Your task to perform on an android device: toggle show notifications on the lock screen Image 0: 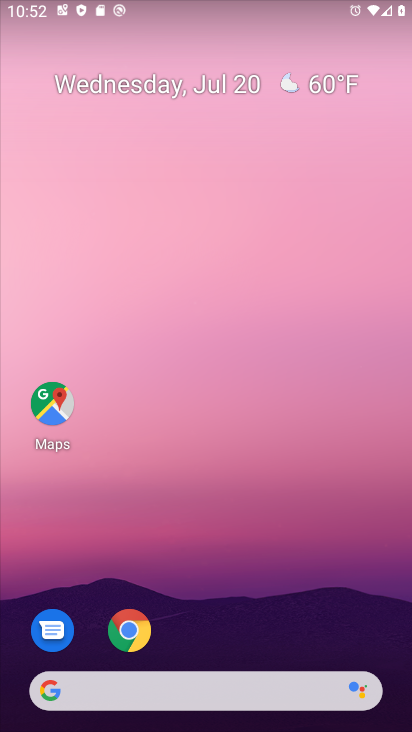
Step 0: drag from (192, 727) to (186, 275)
Your task to perform on an android device: toggle show notifications on the lock screen Image 1: 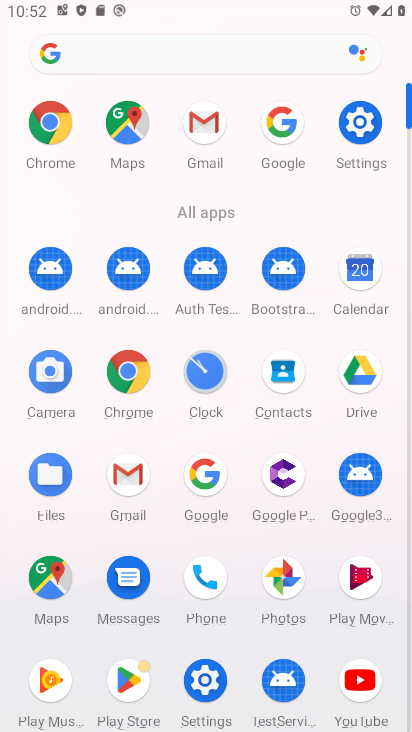
Step 1: click (366, 118)
Your task to perform on an android device: toggle show notifications on the lock screen Image 2: 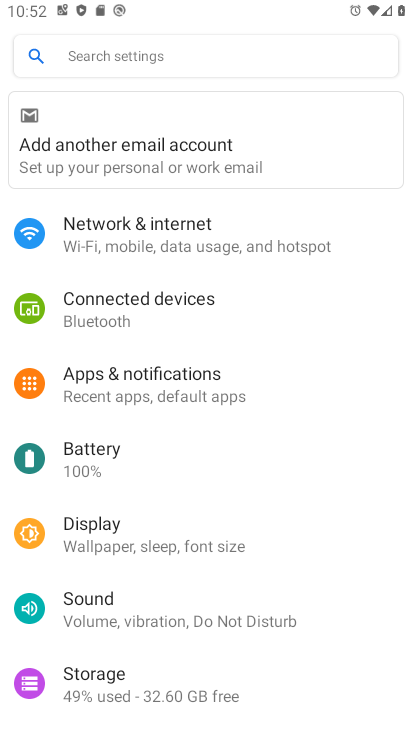
Step 2: click (133, 377)
Your task to perform on an android device: toggle show notifications on the lock screen Image 3: 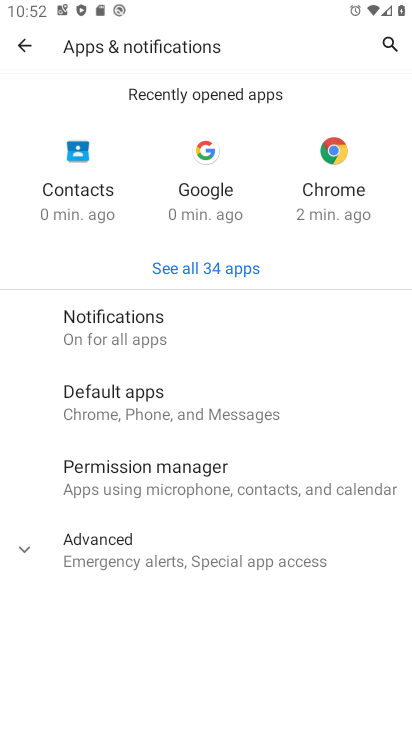
Step 3: click (112, 330)
Your task to perform on an android device: toggle show notifications on the lock screen Image 4: 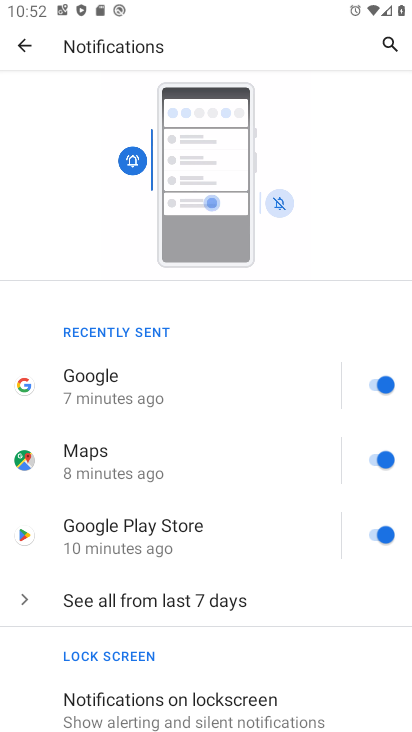
Step 4: click (159, 703)
Your task to perform on an android device: toggle show notifications on the lock screen Image 5: 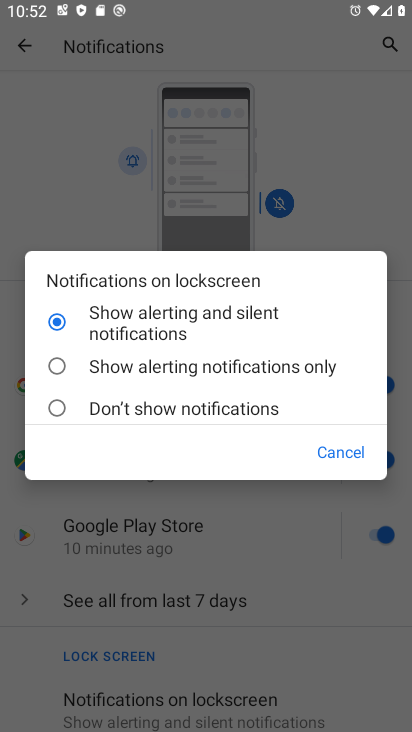
Step 5: click (55, 367)
Your task to perform on an android device: toggle show notifications on the lock screen Image 6: 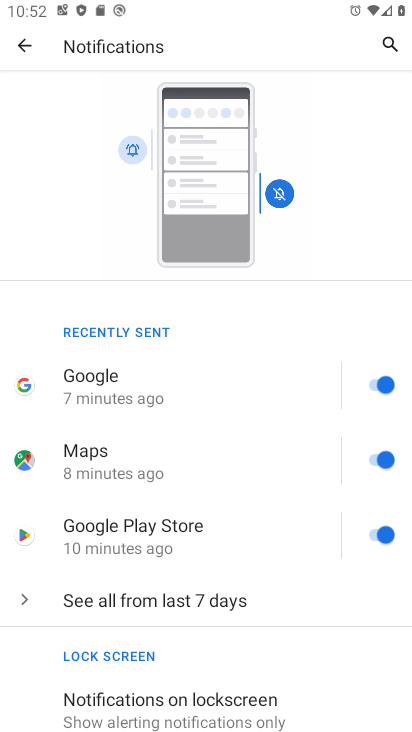
Step 6: task complete